Your task to perform on an android device: Show me the alarms in the clock app Image 0: 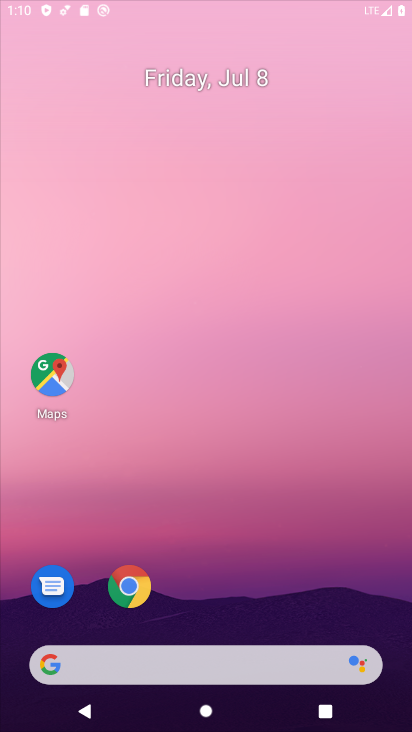
Step 0: drag from (212, 40) to (247, 11)
Your task to perform on an android device: Show me the alarms in the clock app Image 1: 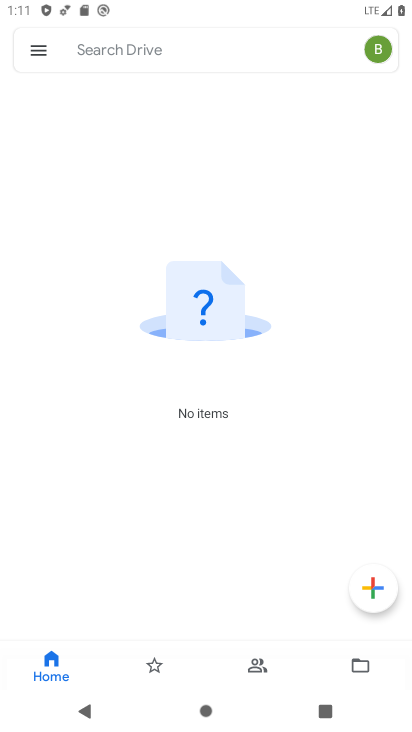
Step 1: press home button
Your task to perform on an android device: Show me the alarms in the clock app Image 2: 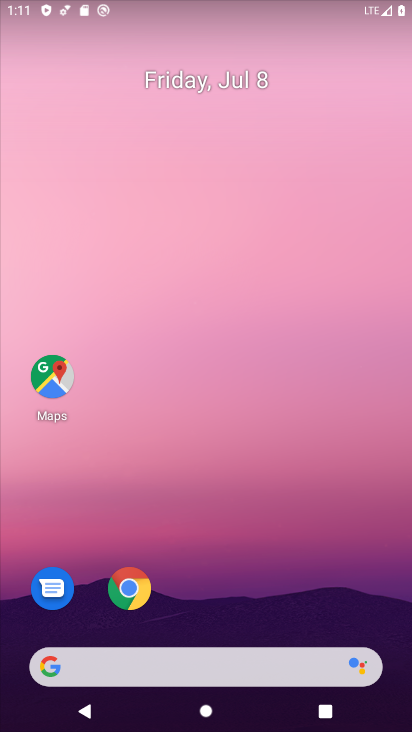
Step 2: drag from (169, 3) to (132, 23)
Your task to perform on an android device: Show me the alarms in the clock app Image 3: 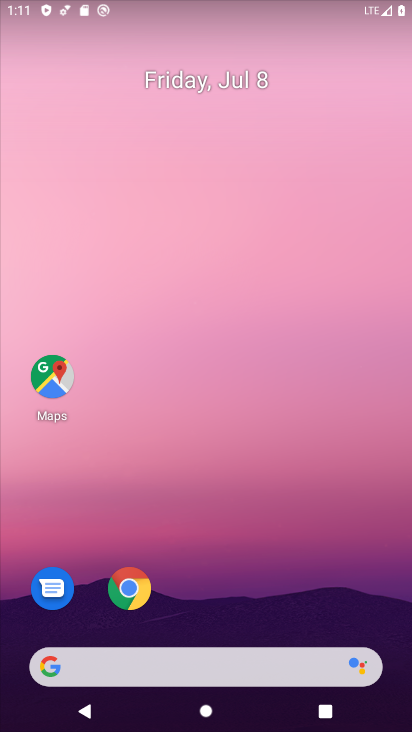
Step 3: drag from (195, 592) to (200, 10)
Your task to perform on an android device: Show me the alarms in the clock app Image 4: 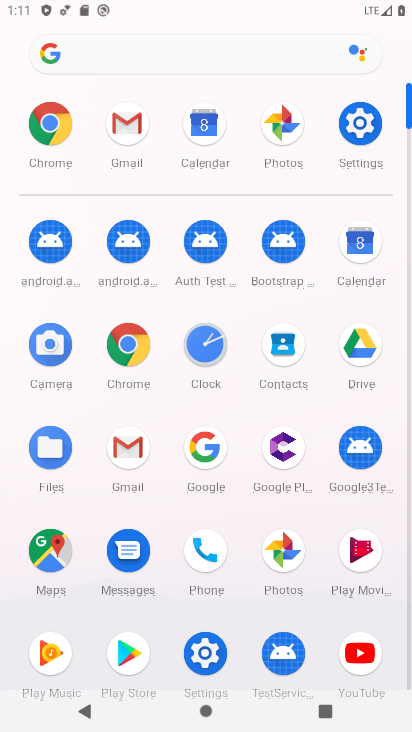
Step 4: drag from (252, 602) to (298, 6)
Your task to perform on an android device: Show me the alarms in the clock app Image 5: 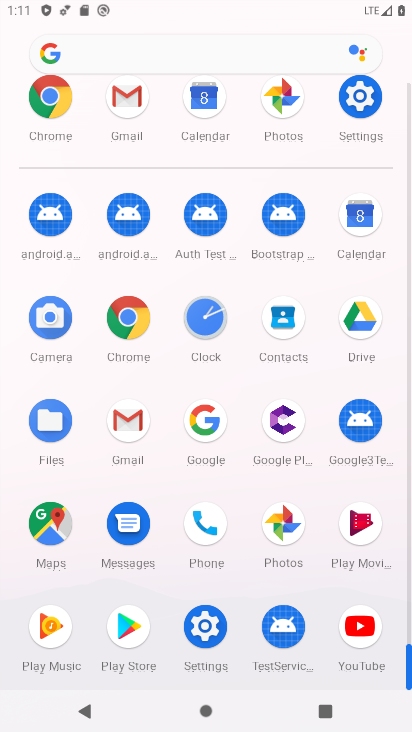
Step 5: click (206, 313)
Your task to perform on an android device: Show me the alarms in the clock app Image 6: 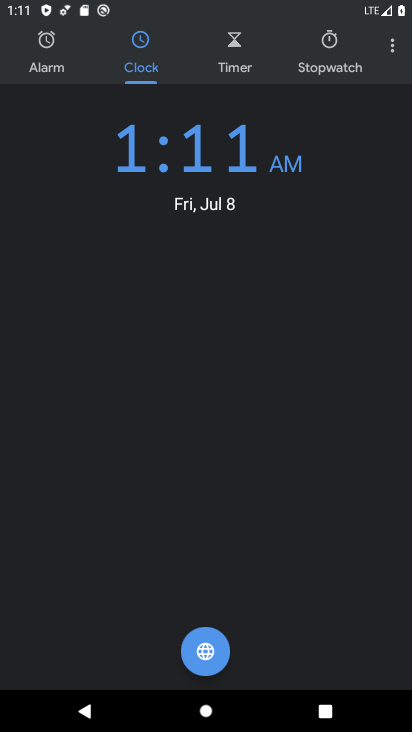
Step 6: click (388, 49)
Your task to perform on an android device: Show me the alarms in the clock app Image 7: 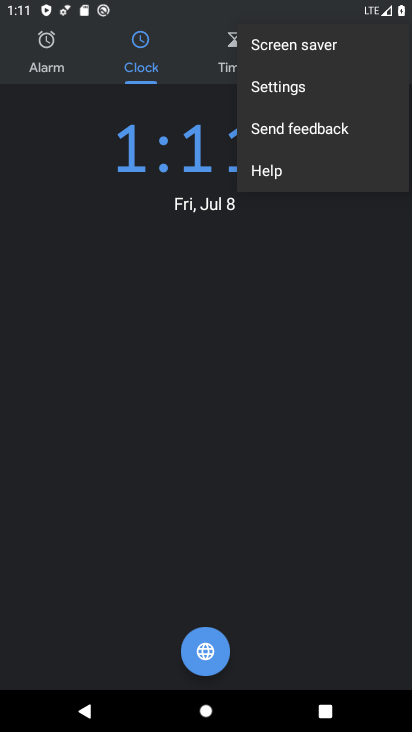
Step 7: click (41, 45)
Your task to perform on an android device: Show me the alarms in the clock app Image 8: 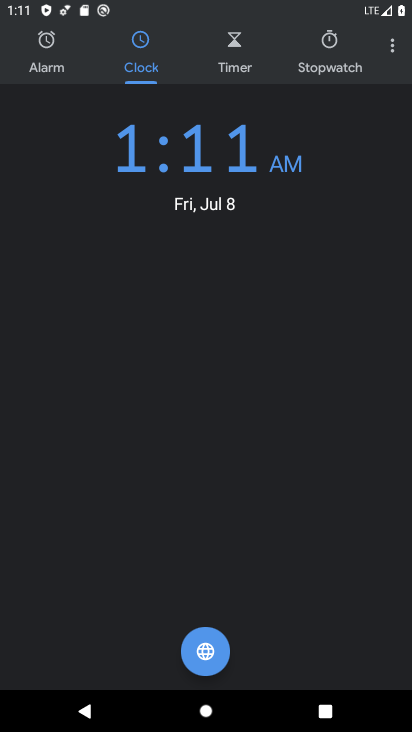
Step 8: click (41, 45)
Your task to perform on an android device: Show me the alarms in the clock app Image 9: 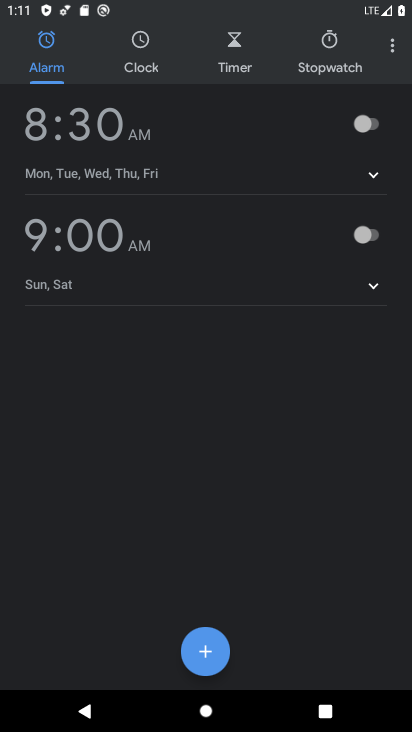
Step 9: task complete